Your task to perform on an android device: turn vacation reply on in the gmail app Image 0: 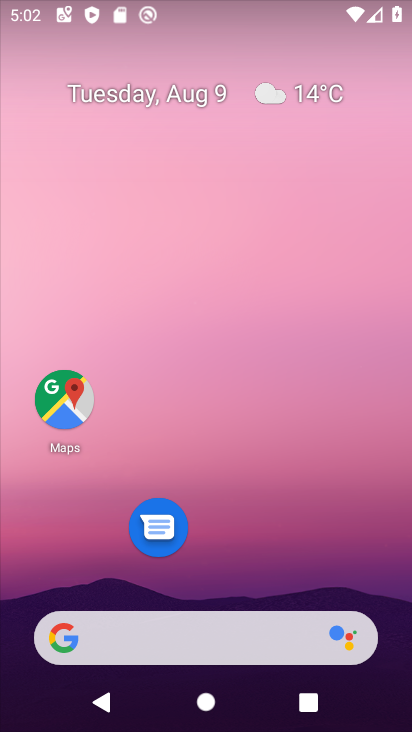
Step 0: drag from (212, 561) to (191, 156)
Your task to perform on an android device: turn vacation reply on in the gmail app Image 1: 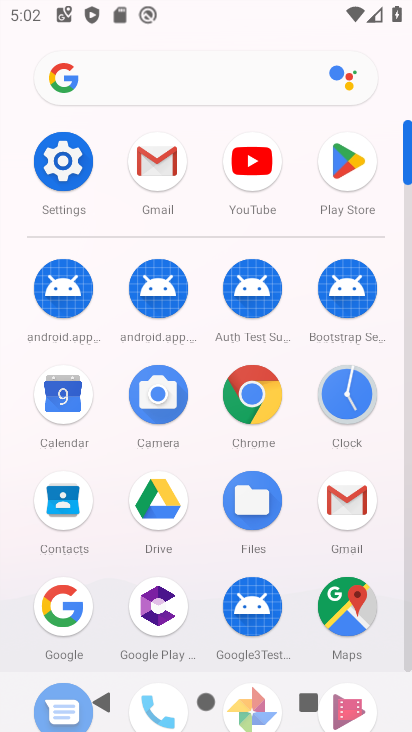
Step 1: click (176, 152)
Your task to perform on an android device: turn vacation reply on in the gmail app Image 2: 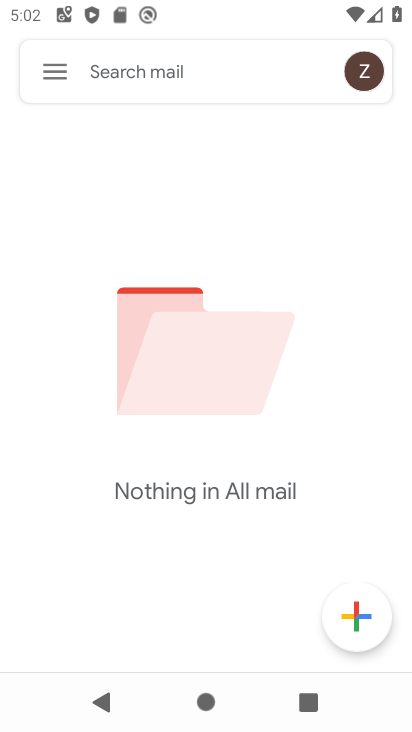
Step 2: click (176, 152)
Your task to perform on an android device: turn vacation reply on in the gmail app Image 3: 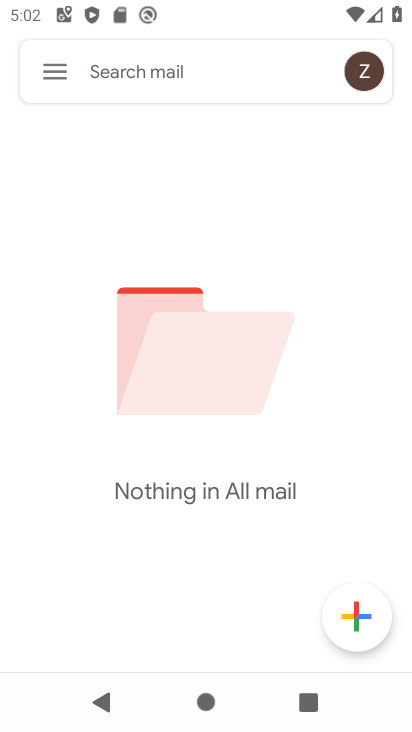
Step 3: click (74, 66)
Your task to perform on an android device: turn vacation reply on in the gmail app Image 4: 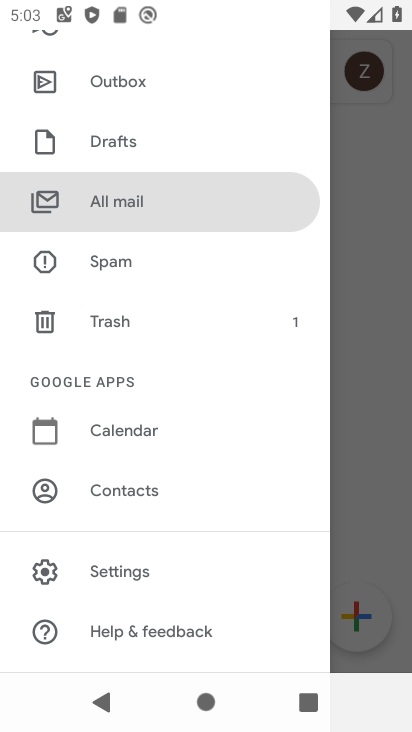
Step 4: click (147, 569)
Your task to perform on an android device: turn vacation reply on in the gmail app Image 5: 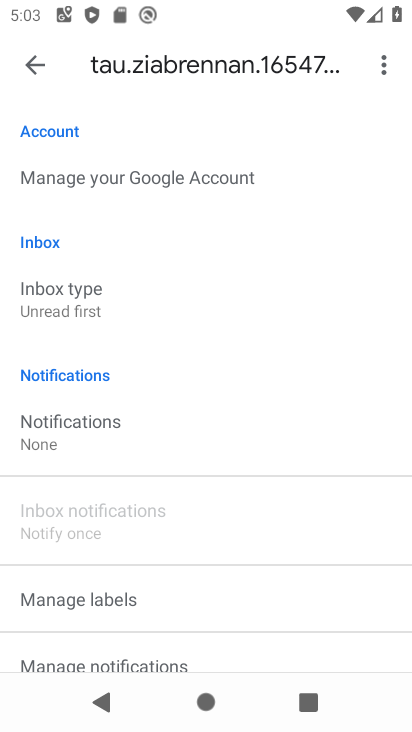
Step 5: drag from (196, 618) to (107, 132)
Your task to perform on an android device: turn vacation reply on in the gmail app Image 6: 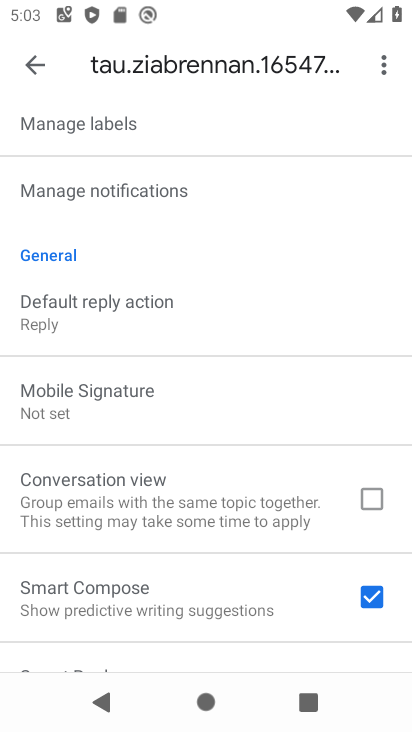
Step 6: drag from (152, 559) to (138, 286)
Your task to perform on an android device: turn vacation reply on in the gmail app Image 7: 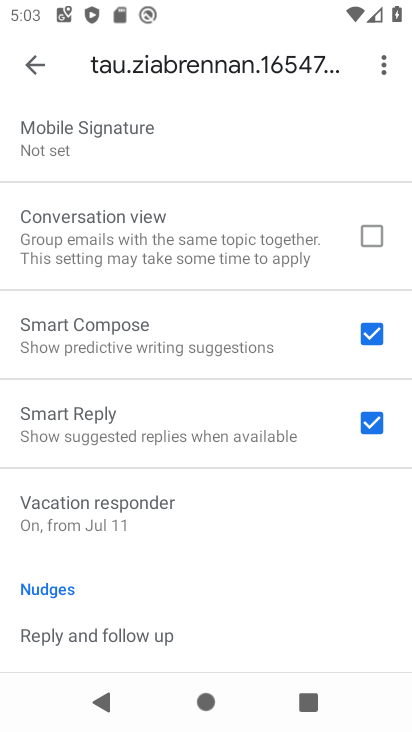
Step 7: click (236, 505)
Your task to perform on an android device: turn vacation reply on in the gmail app Image 8: 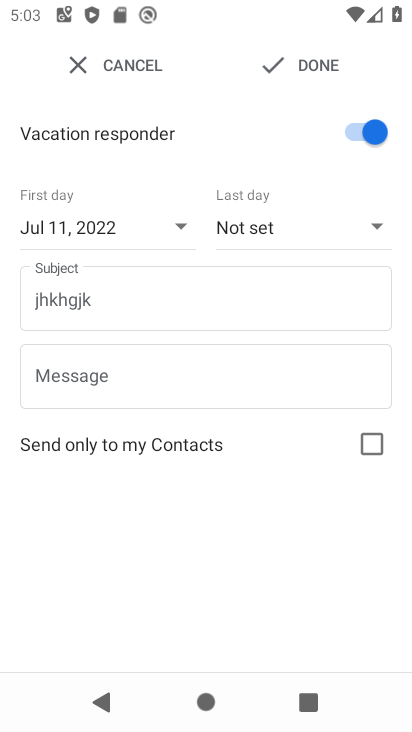
Step 8: click (294, 62)
Your task to perform on an android device: turn vacation reply on in the gmail app Image 9: 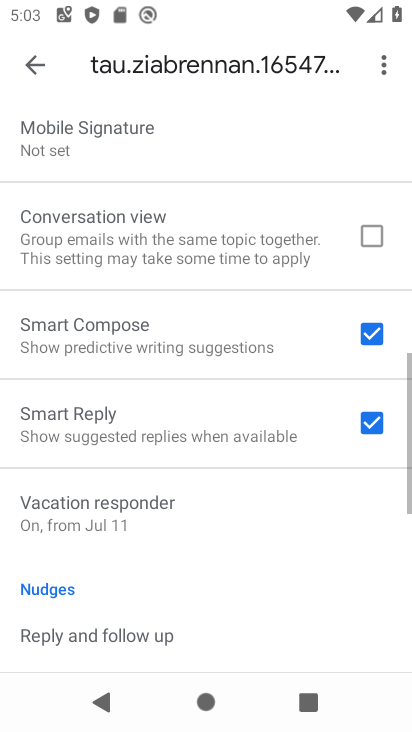
Step 9: task complete